Your task to perform on an android device: toggle priority inbox in the gmail app Image 0: 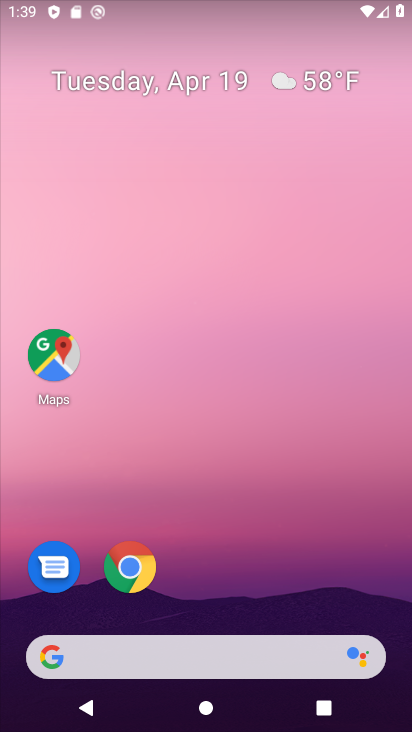
Step 0: drag from (383, 599) to (379, 85)
Your task to perform on an android device: toggle priority inbox in the gmail app Image 1: 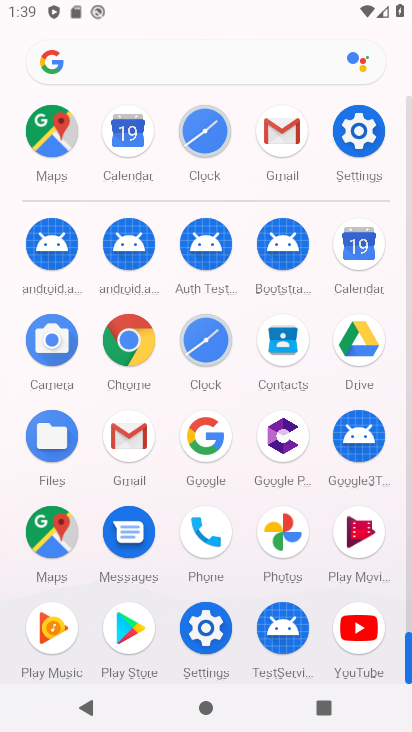
Step 1: click (129, 432)
Your task to perform on an android device: toggle priority inbox in the gmail app Image 2: 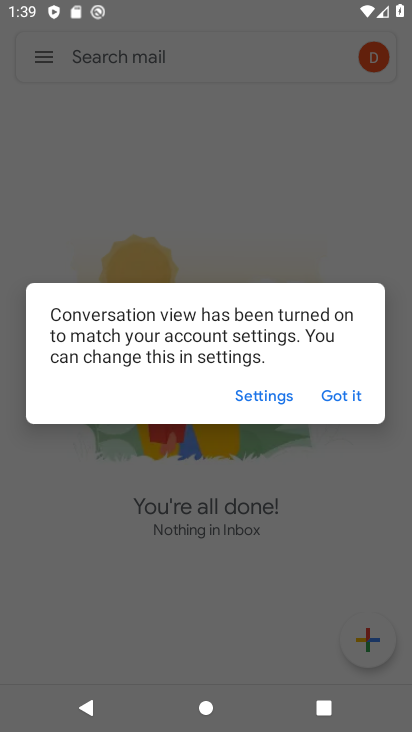
Step 2: press home button
Your task to perform on an android device: toggle priority inbox in the gmail app Image 3: 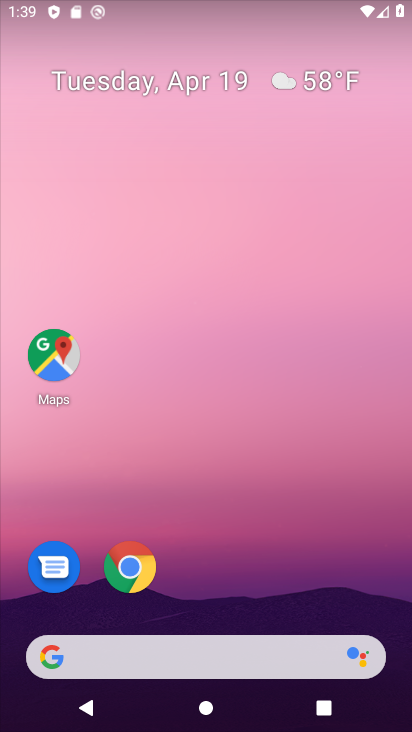
Step 3: drag from (393, 616) to (359, 155)
Your task to perform on an android device: toggle priority inbox in the gmail app Image 4: 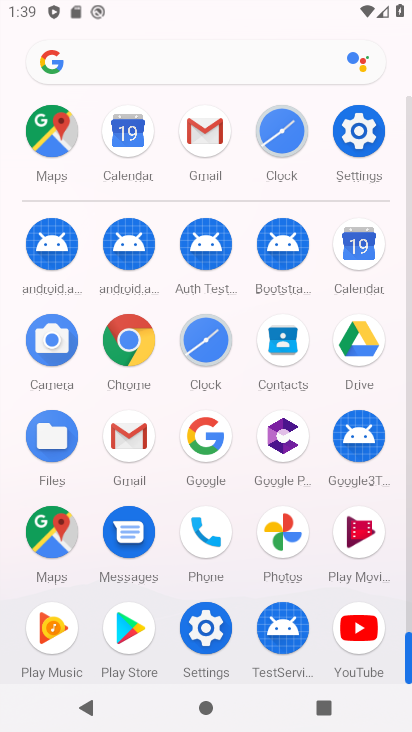
Step 4: click (126, 433)
Your task to perform on an android device: toggle priority inbox in the gmail app Image 5: 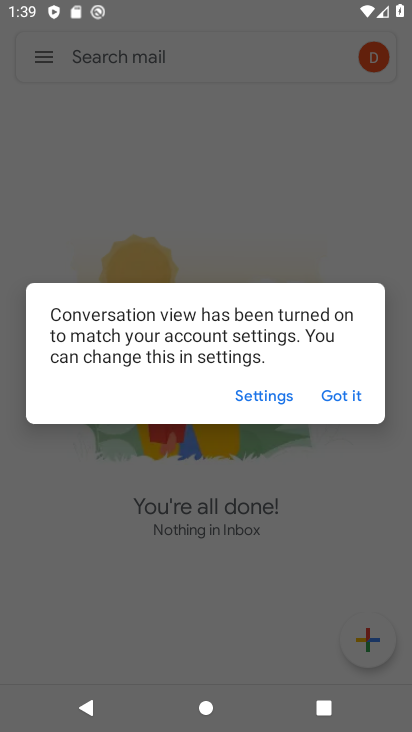
Step 5: click (350, 397)
Your task to perform on an android device: toggle priority inbox in the gmail app Image 6: 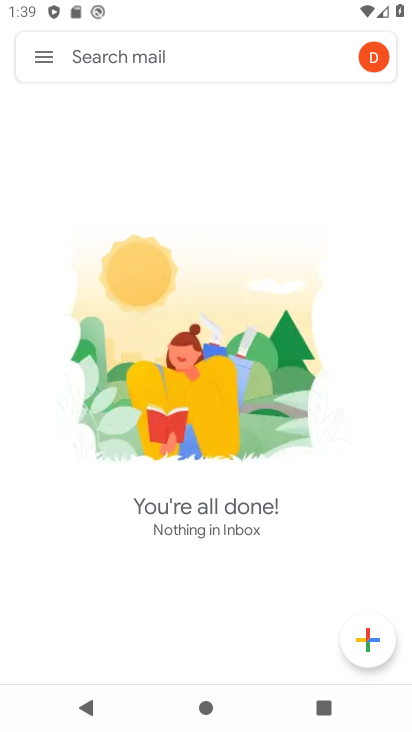
Step 6: click (44, 53)
Your task to perform on an android device: toggle priority inbox in the gmail app Image 7: 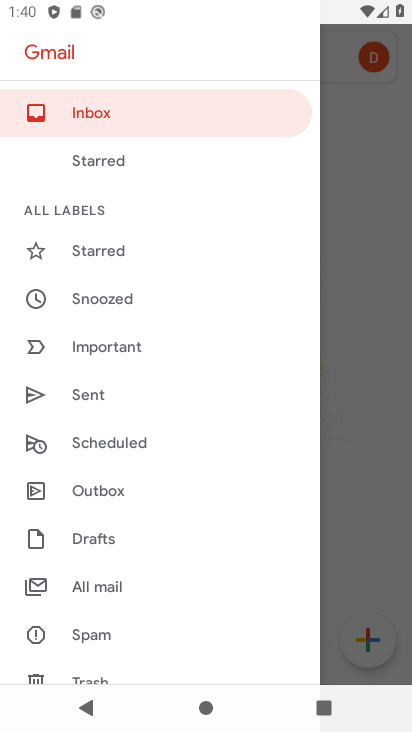
Step 7: drag from (155, 652) to (233, 213)
Your task to perform on an android device: toggle priority inbox in the gmail app Image 8: 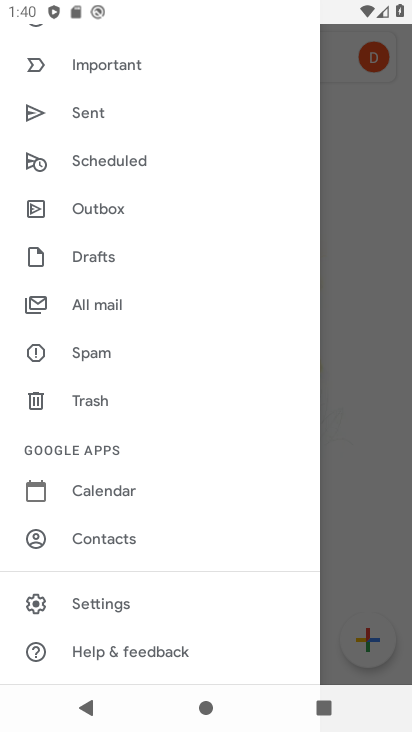
Step 8: click (91, 603)
Your task to perform on an android device: toggle priority inbox in the gmail app Image 9: 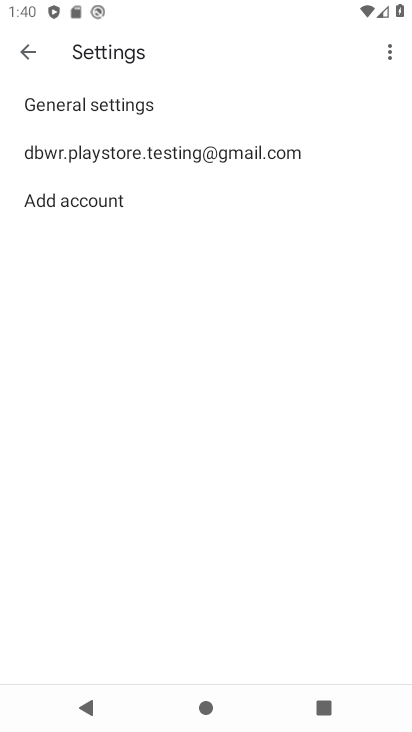
Step 9: click (134, 146)
Your task to perform on an android device: toggle priority inbox in the gmail app Image 10: 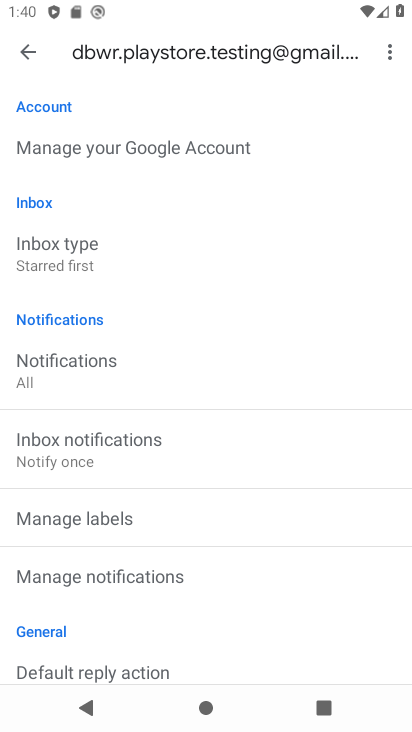
Step 10: click (54, 260)
Your task to perform on an android device: toggle priority inbox in the gmail app Image 11: 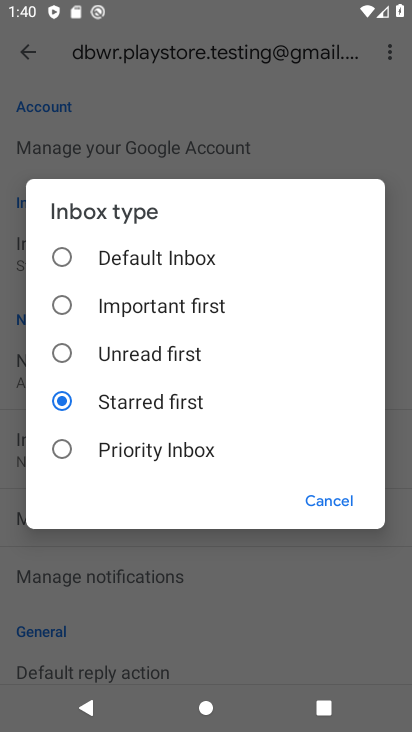
Step 11: click (60, 444)
Your task to perform on an android device: toggle priority inbox in the gmail app Image 12: 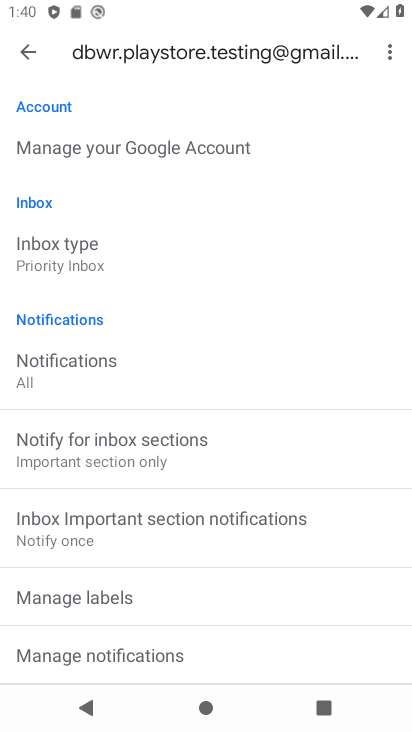
Step 12: task complete